Your task to perform on an android device: Go to Yahoo.com Image 0: 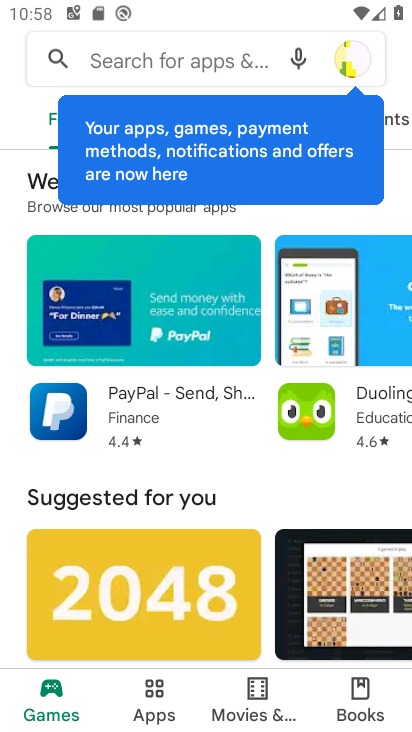
Step 0: press home button
Your task to perform on an android device: Go to Yahoo.com Image 1: 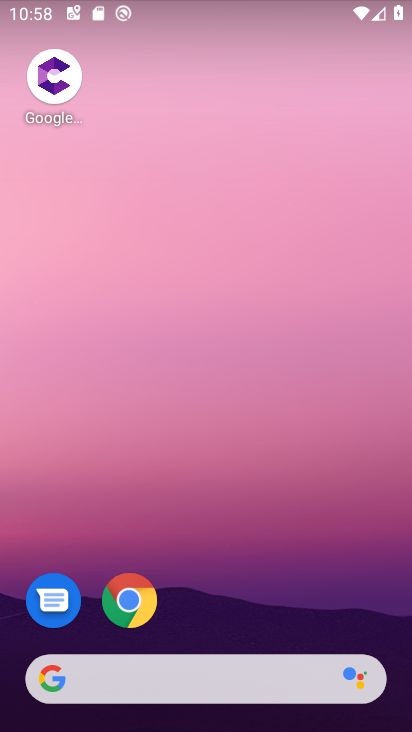
Step 1: drag from (218, 620) to (217, 89)
Your task to perform on an android device: Go to Yahoo.com Image 2: 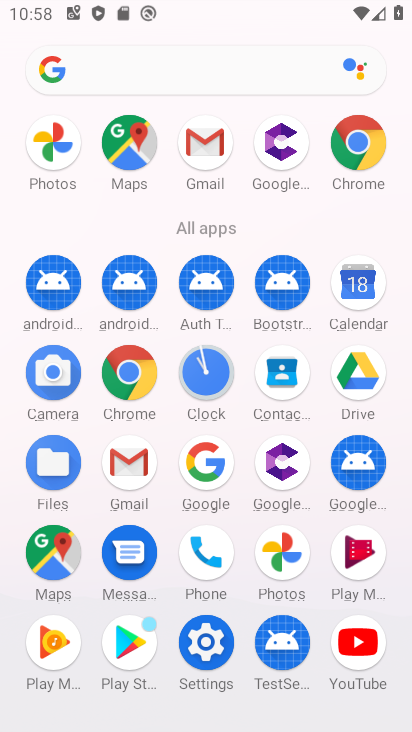
Step 2: click (129, 387)
Your task to perform on an android device: Go to Yahoo.com Image 3: 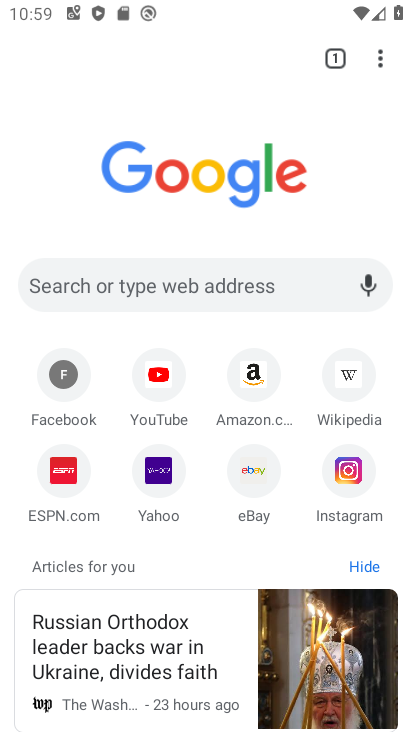
Step 3: click (157, 483)
Your task to perform on an android device: Go to Yahoo.com Image 4: 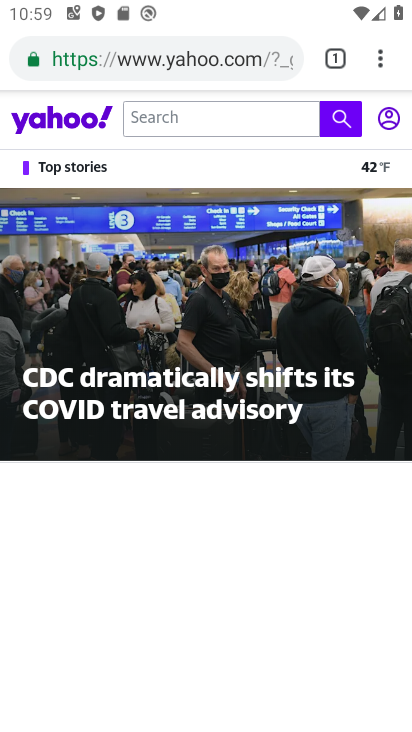
Step 4: task complete